Your task to perform on an android device: turn off location history Image 0: 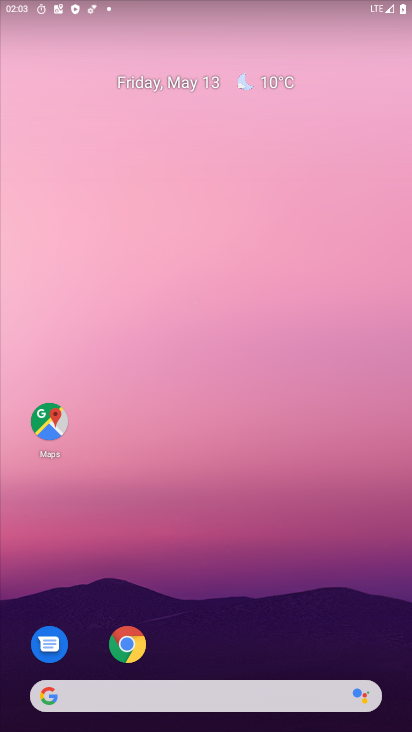
Step 0: drag from (168, 698) to (390, 6)
Your task to perform on an android device: turn off location history Image 1: 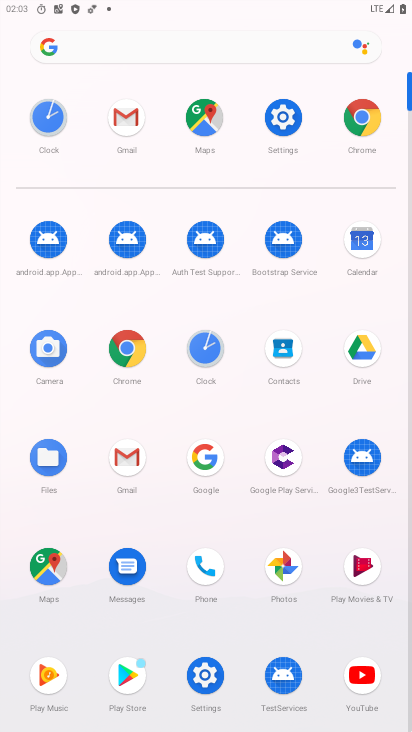
Step 1: click (283, 123)
Your task to perform on an android device: turn off location history Image 2: 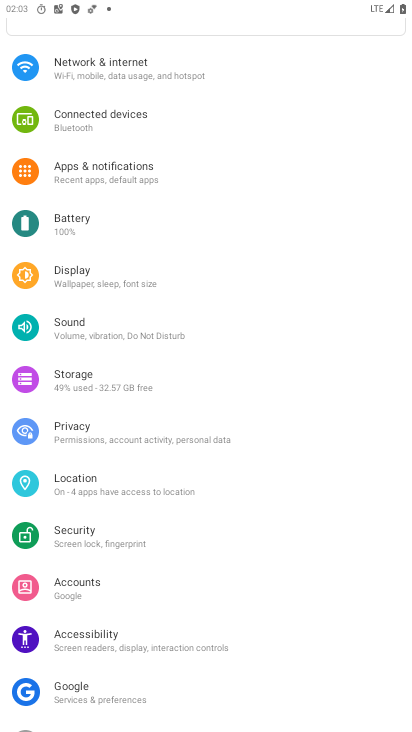
Step 2: click (123, 478)
Your task to perform on an android device: turn off location history Image 3: 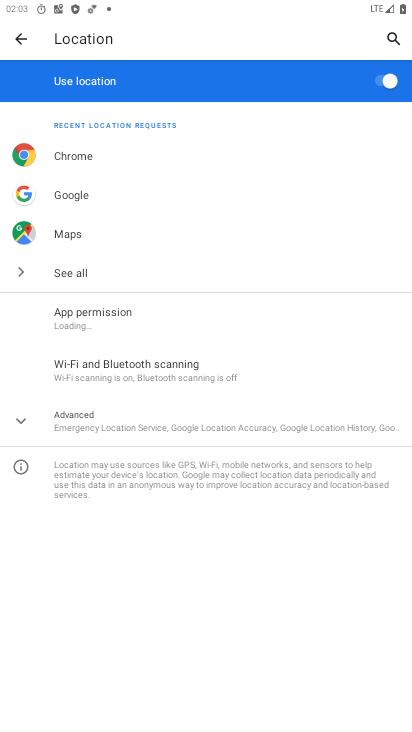
Step 3: click (165, 415)
Your task to perform on an android device: turn off location history Image 4: 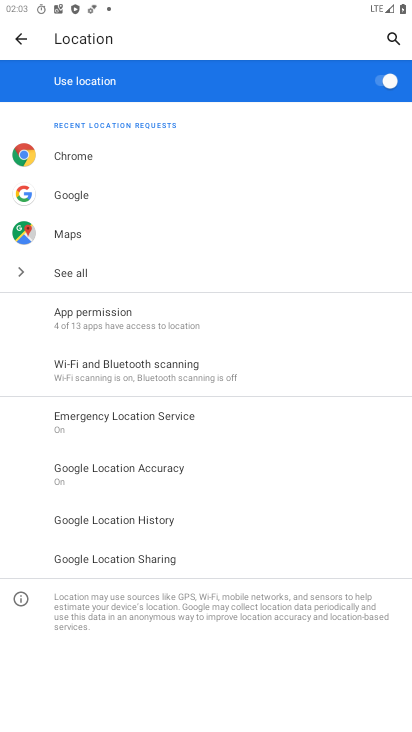
Step 4: click (162, 526)
Your task to perform on an android device: turn off location history Image 5: 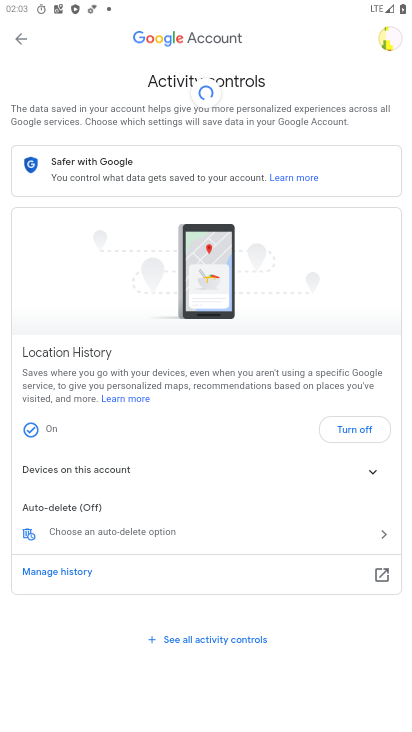
Step 5: click (357, 427)
Your task to perform on an android device: turn off location history Image 6: 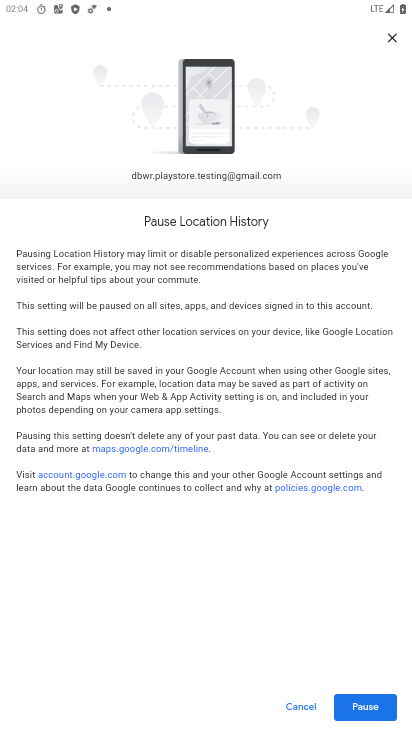
Step 6: click (371, 710)
Your task to perform on an android device: turn off location history Image 7: 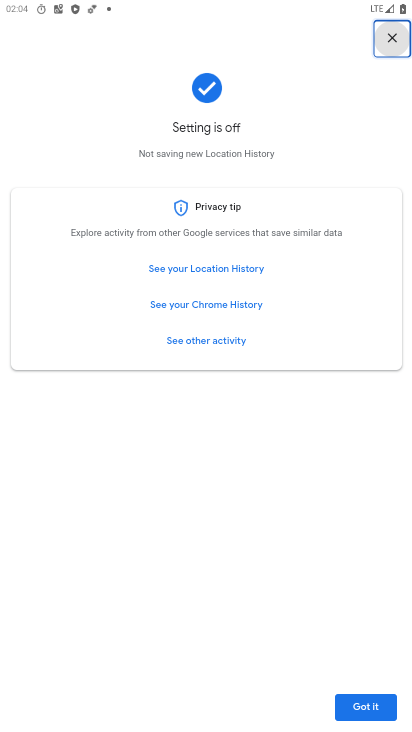
Step 7: task complete